Your task to perform on an android device: turn vacation reply on in the gmail app Image 0: 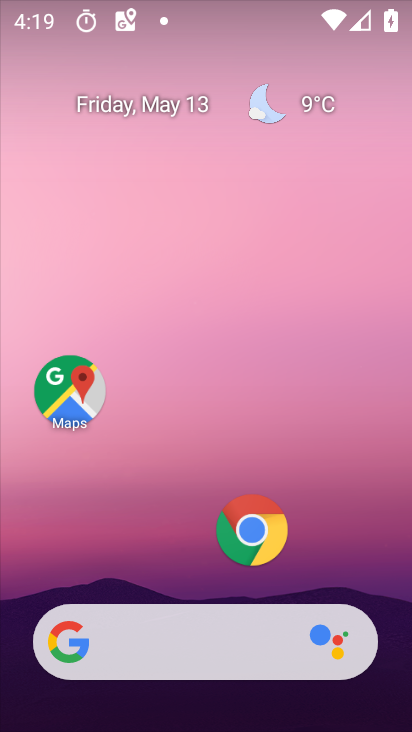
Step 0: drag from (192, 582) to (231, 104)
Your task to perform on an android device: turn vacation reply on in the gmail app Image 1: 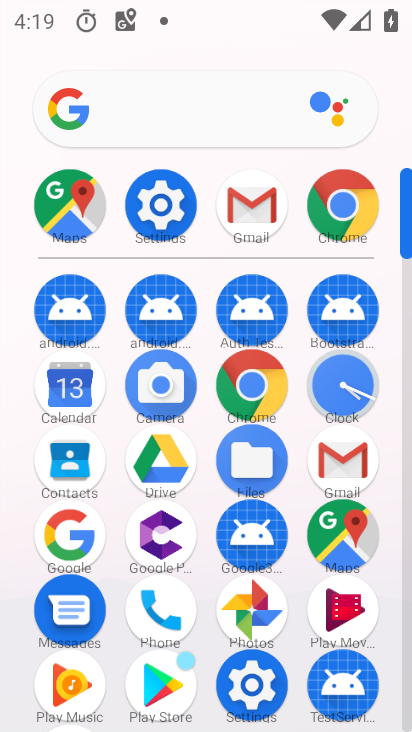
Step 1: click (345, 458)
Your task to perform on an android device: turn vacation reply on in the gmail app Image 2: 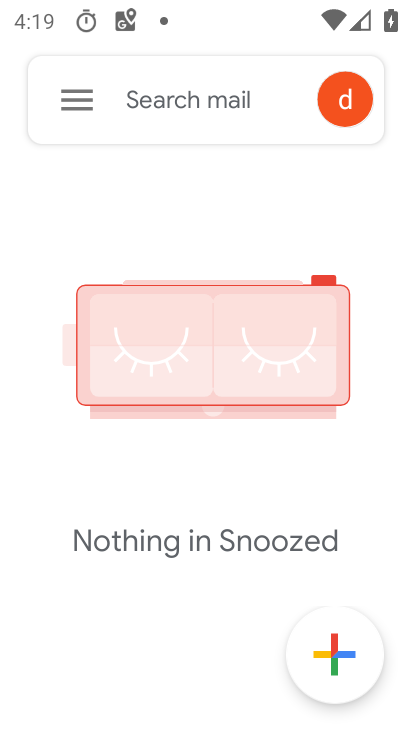
Step 2: click (70, 90)
Your task to perform on an android device: turn vacation reply on in the gmail app Image 3: 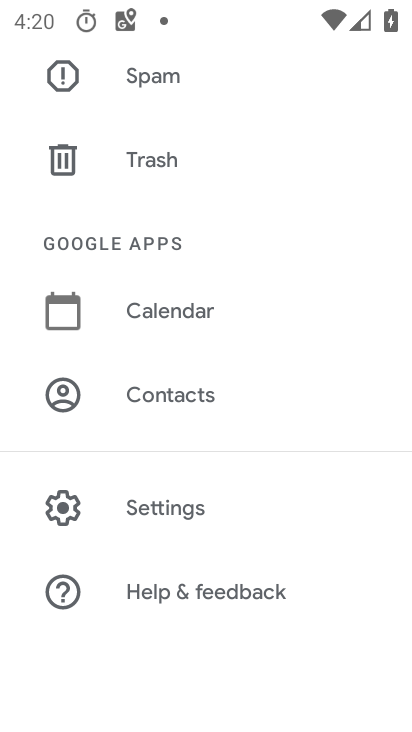
Step 3: click (101, 509)
Your task to perform on an android device: turn vacation reply on in the gmail app Image 4: 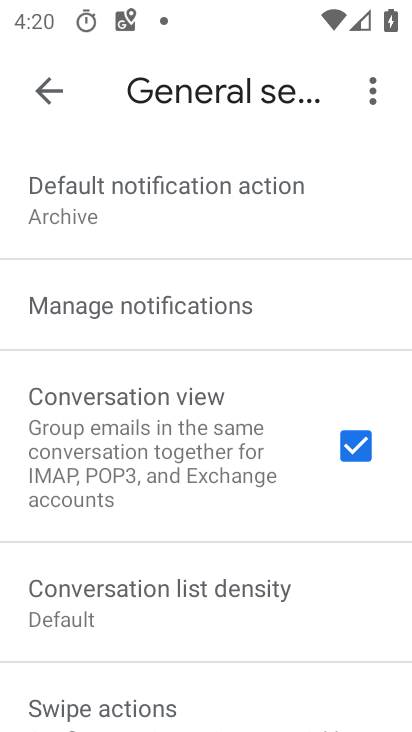
Step 4: click (44, 93)
Your task to perform on an android device: turn vacation reply on in the gmail app Image 5: 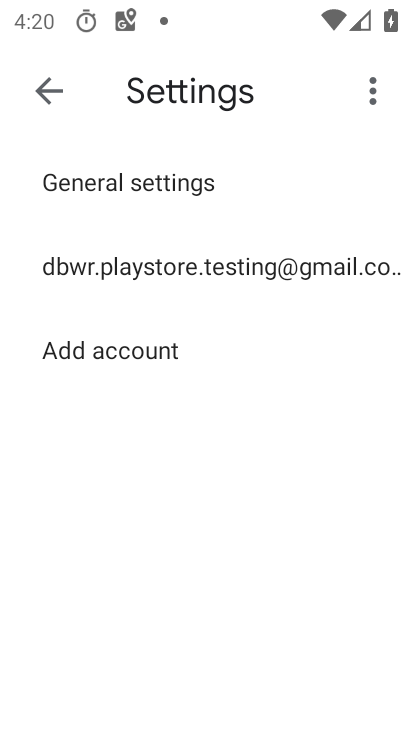
Step 5: click (84, 263)
Your task to perform on an android device: turn vacation reply on in the gmail app Image 6: 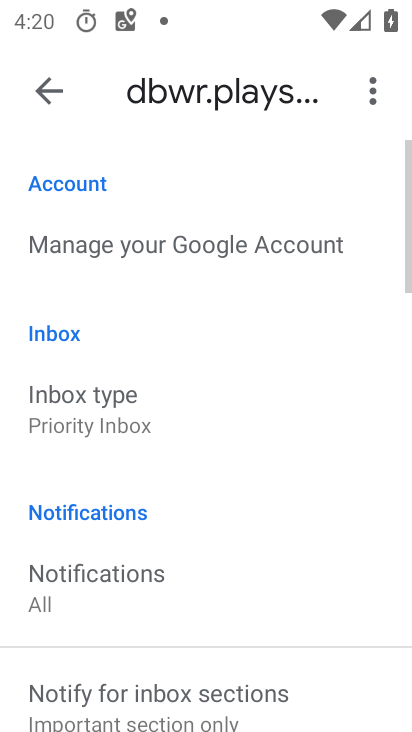
Step 6: drag from (182, 606) to (210, 126)
Your task to perform on an android device: turn vacation reply on in the gmail app Image 7: 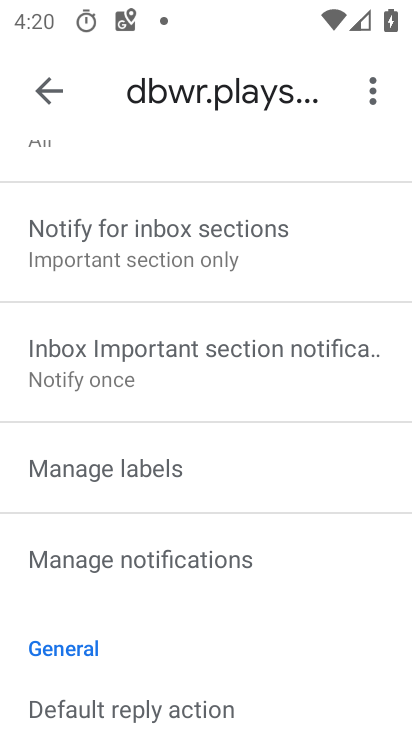
Step 7: drag from (161, 631) to (162, 99)
Your task to perform on an android device: turn vacation reply on in the gmail app Image 8: 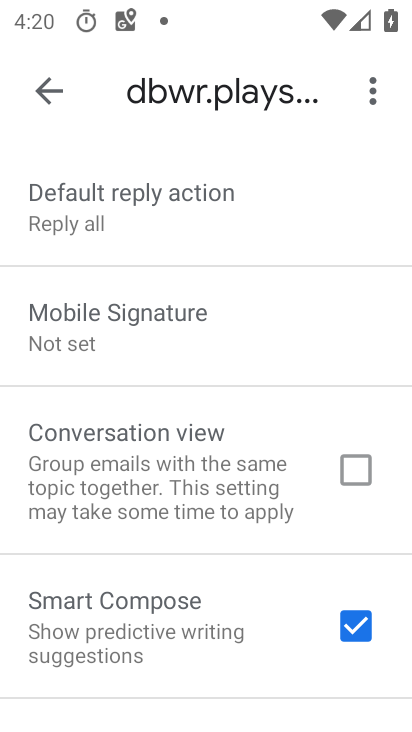
Step 8: drag from (155, 650) to (173, 229)
Your task to perform on an android device: turn vacation reply on in the gmail app Image 9: 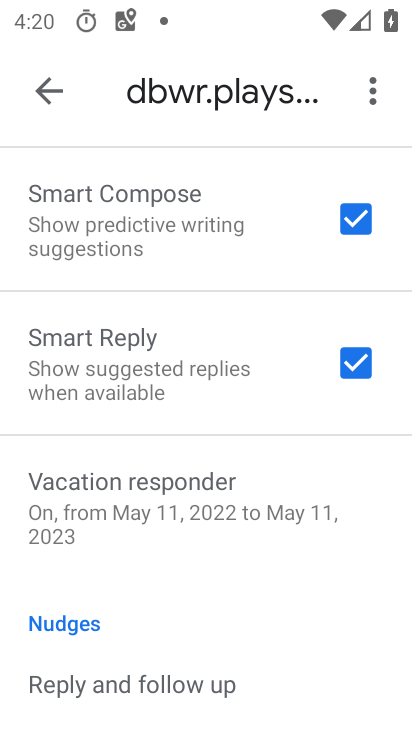
Step 9: click (184, 487)
Your task to perform on an android device: turn vacation reply on in the gmail app Image 10: 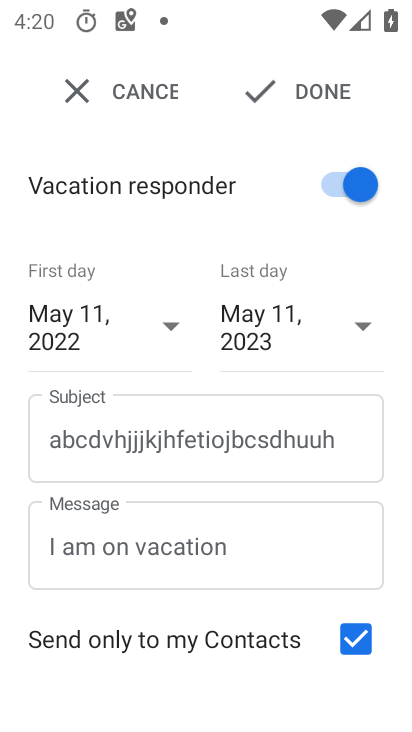
Step 10: task complete